Your task to perform on an android device: delete the emails in spam in the gmail app Image 0: 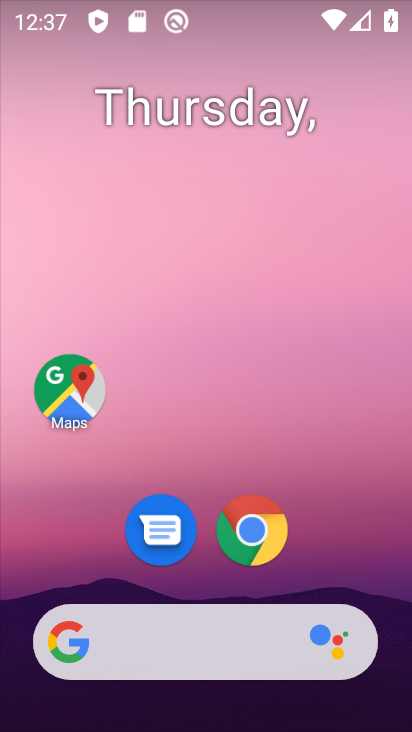
Step 0: drag from (218, 585) to (149, 99)
Your task to perform on an android device: delete the emails in spam in the gmail app Image 1: 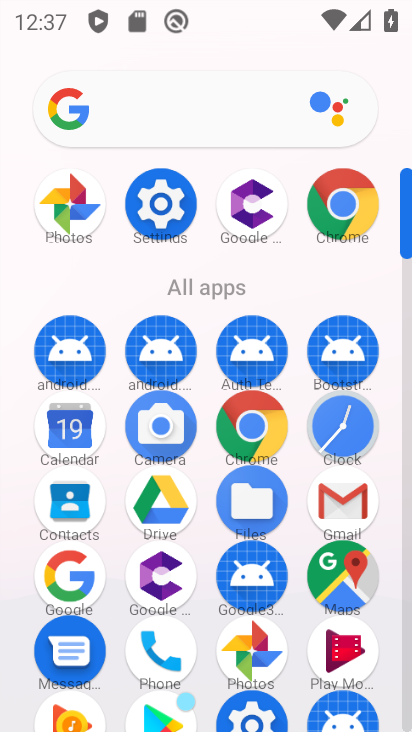
Step 1: click (344, 493)
Your task to perform on an android device: delete the emails in spam in the gmail app Image 2: 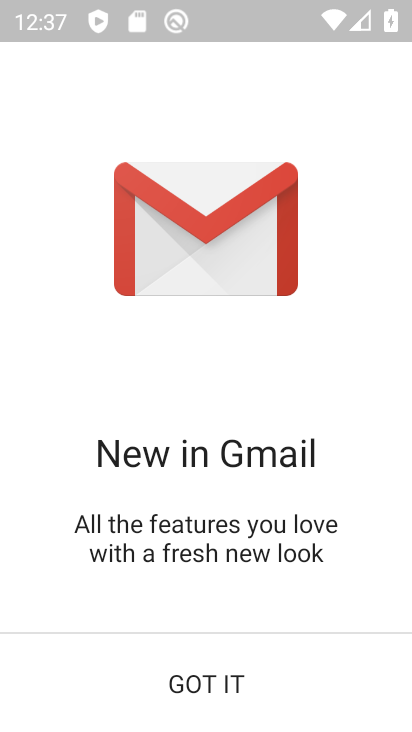
Step 2: click (256, 691)
Your task to perform on an android device: delete the emails in spam in the gmail app Image 3: 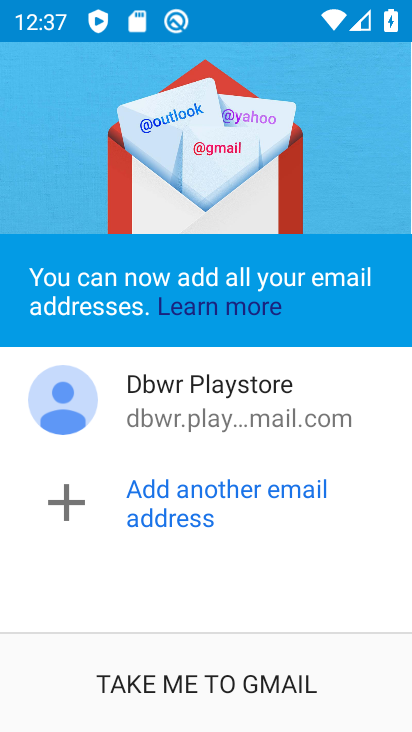
Step 3: click (256, 691)
Your task to perform on an android device: delete the emails in spam in the gmail app Image 4: 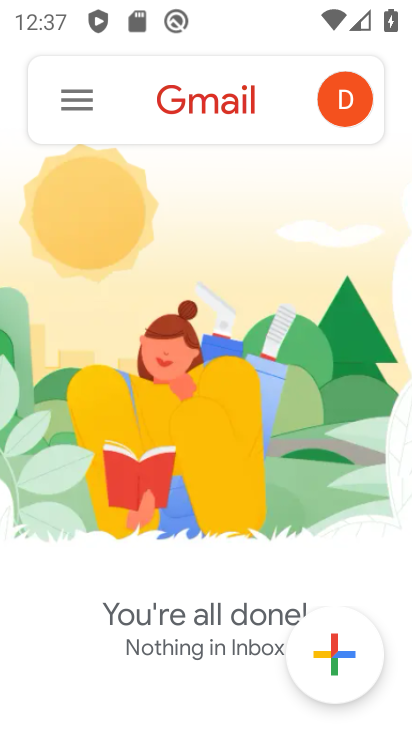
Step 4: click (62, 101)
Your task to perform on an android device: delete the emails in spam in the gmail app Image 5: 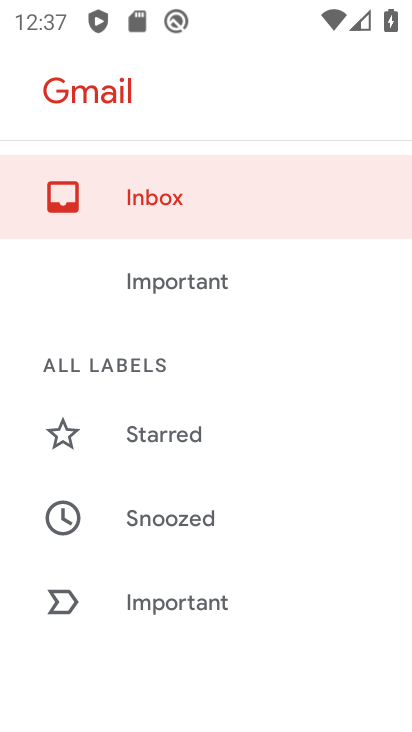
Step 5: drag from (152, 521) to (121, 141)
Your task to perform on an android device: delete the emails in spam in the gmail app Image 6: 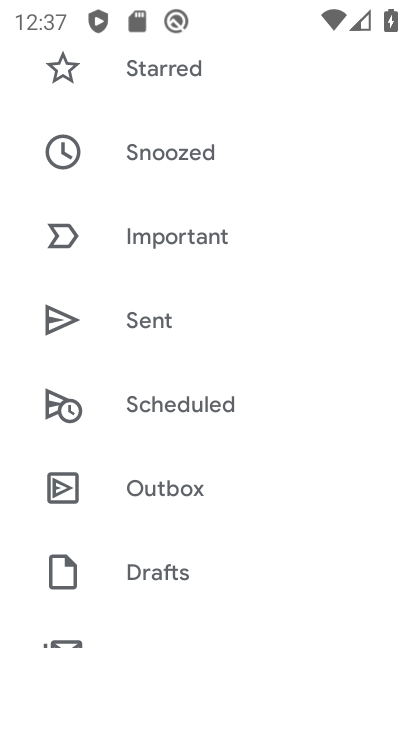
Step 6: drag from (187, 511) to (135, 242)
Your task to perform on an android device: delete the emails in spam in the gmail app Image 7: 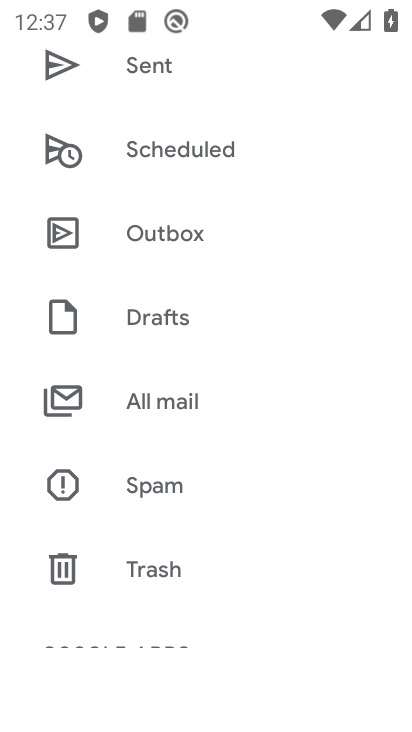
Step 7: click (179, 492)
Your task to perform on an android device: delete the emails in spam in the gmail app Image 8: 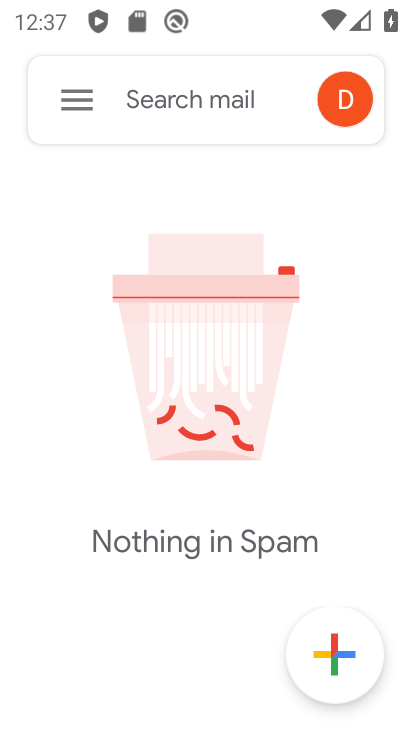
Step 8: task complete